Your task to perform on an android device: Open sound settings Image 0: 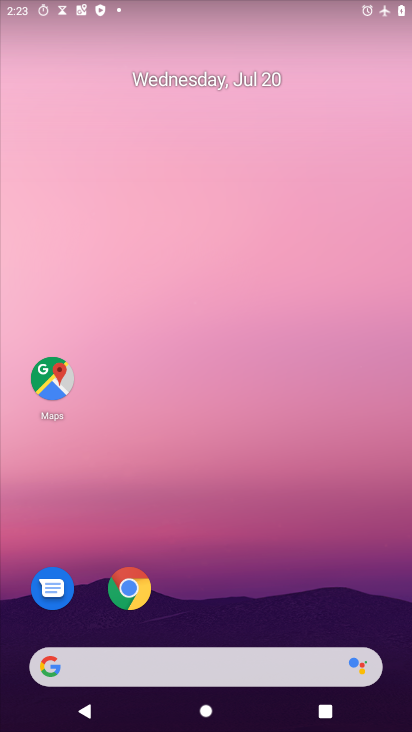
Step 0: drag from (243, 625) to (274, 0)
Your task to perform on an android device: Open sound settings Image 1: 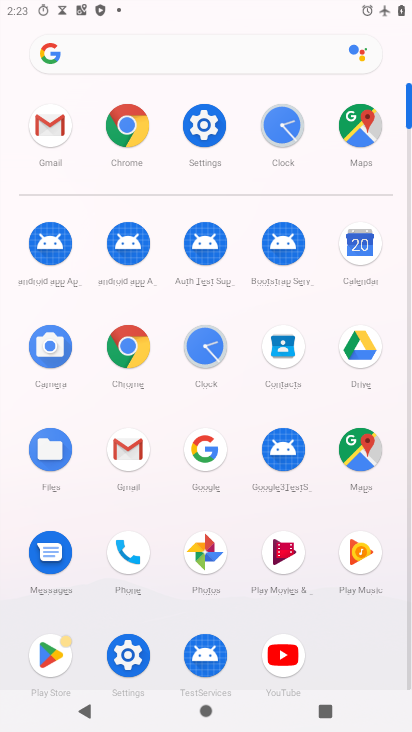
Step 1: click (203, 119)
Your task to perform on an android device: Open sound settings Image 2: 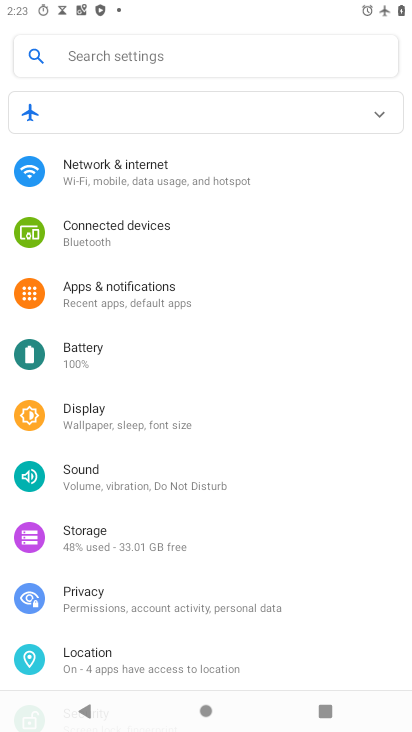
Step 2: click (90, 481)
Your task to perform on an android device: Open sound settings Image 3: 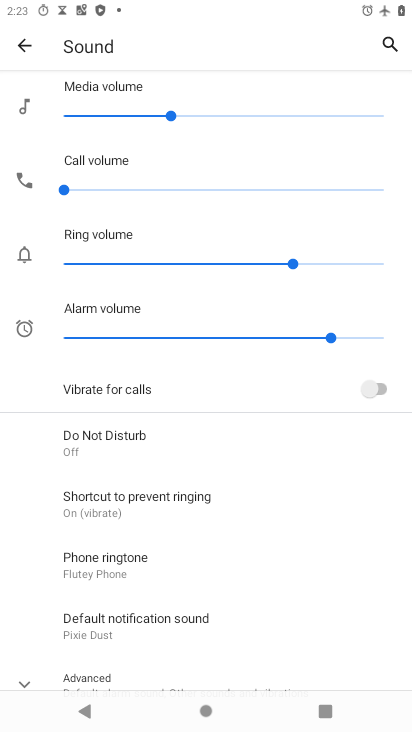
Step 3: task complete